Your task to perform on an android device: remove spam from my inbox in the gmail app Image 0: 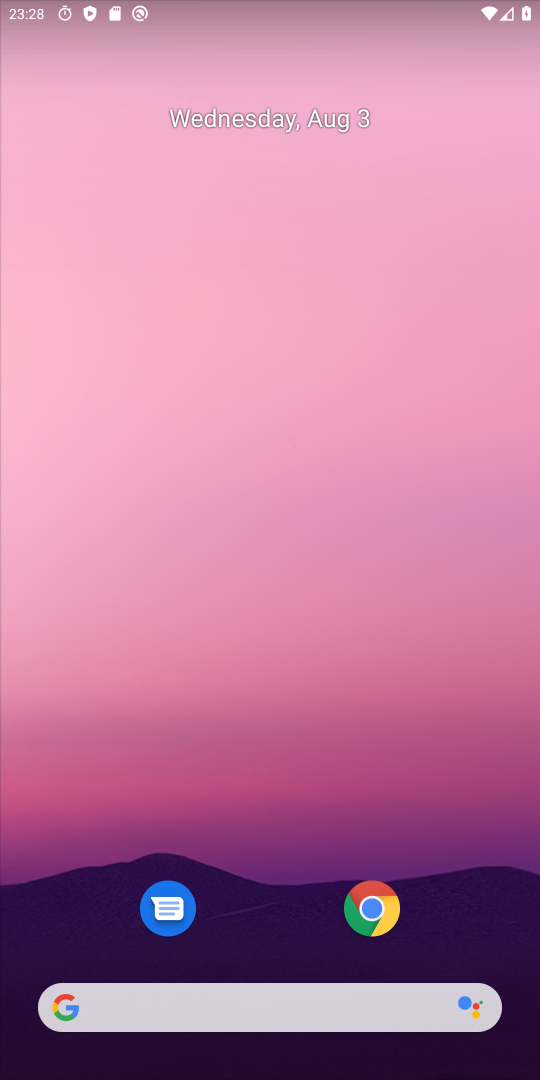
Step 0: drag from (284, 991) to (285, 415)
Your task to perform on an android device: remove spam from my inbox in the gmail app Image 1: 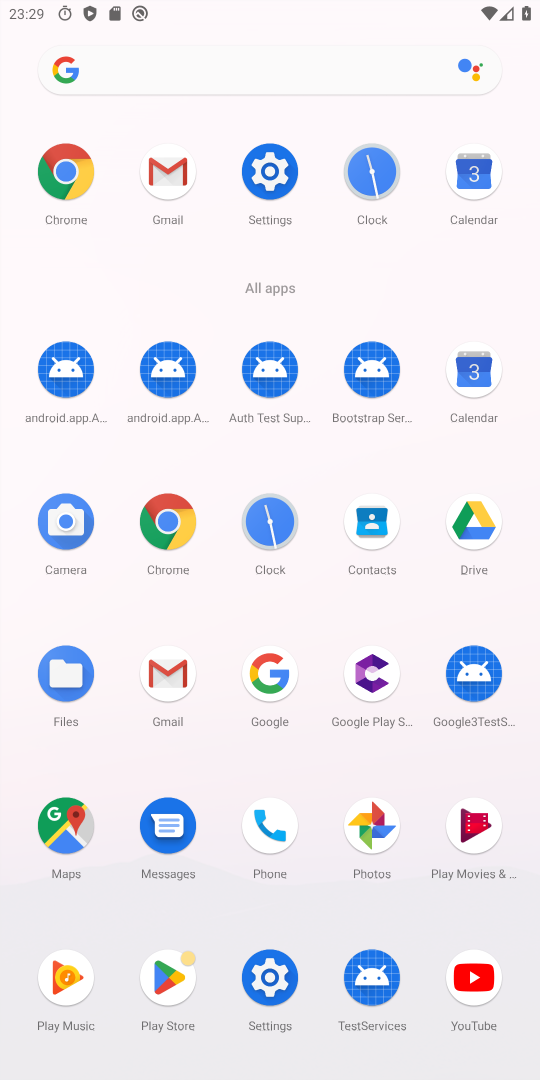
Step 1: click (158, 680)
Your task to perform on an android device: remove spam from my inbox in the gmail app Image 2: 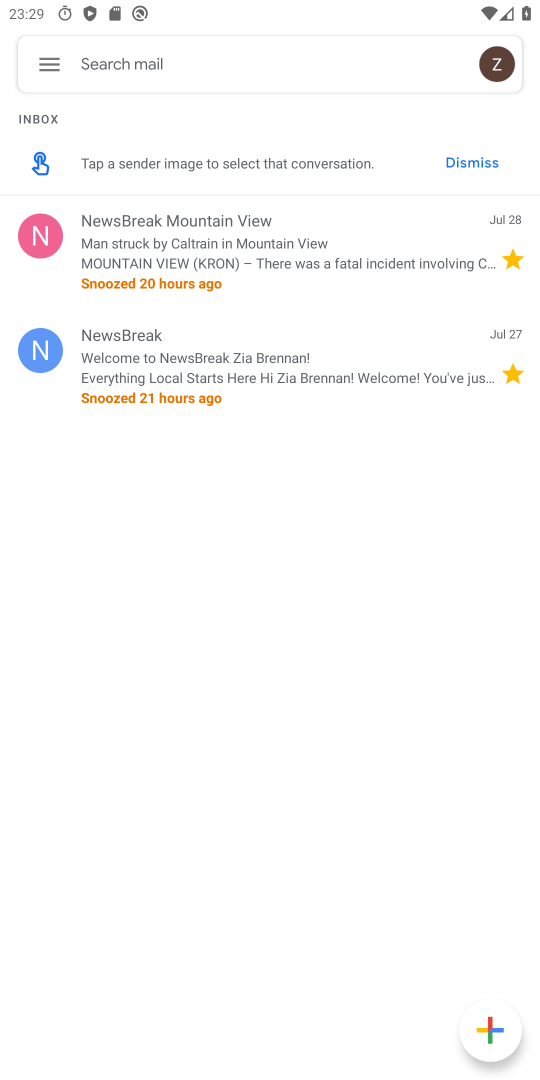
Step 2: click (53, 63)
Your task to perform on an android device: remove spam from my inbox in the gmail app Image 3: 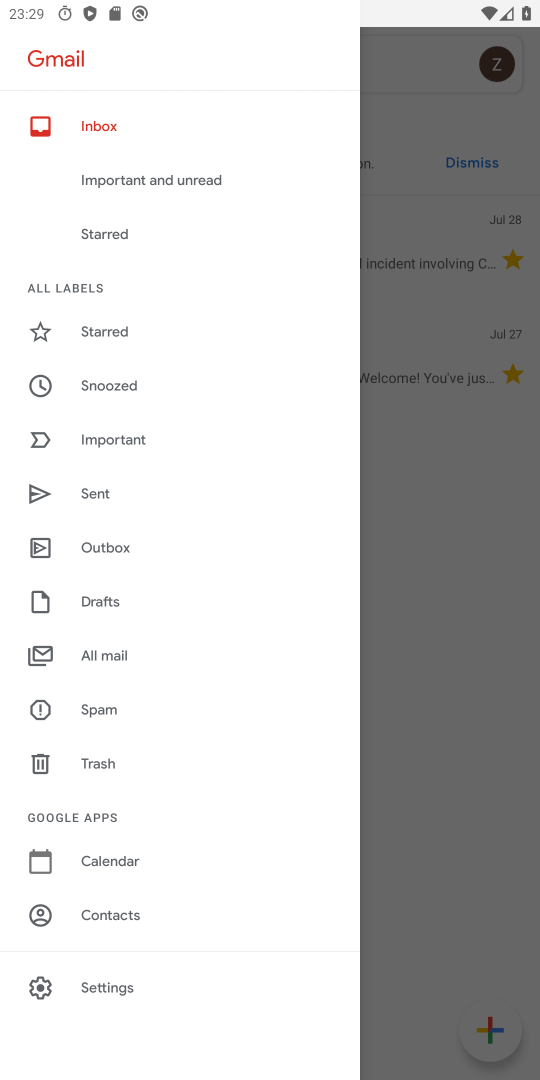
Step 3: click (123, 990)
Your task to perform on an android device: remove spam from my inbox in the gmail app Image 4: 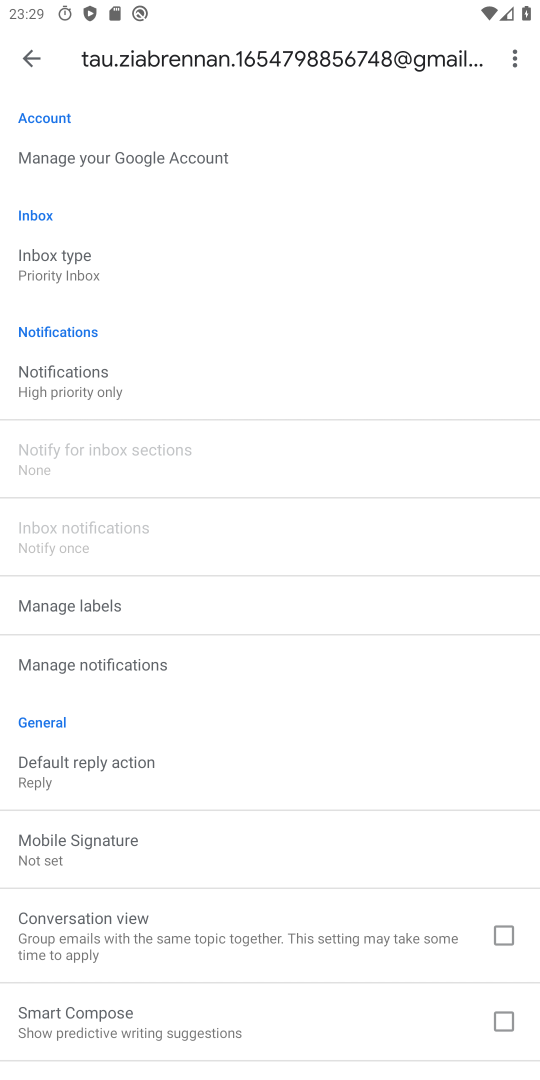
Step 4: click (31, 64)
Your task to perform on an android device: remove spam from my inbox in the gmail app Image 5: 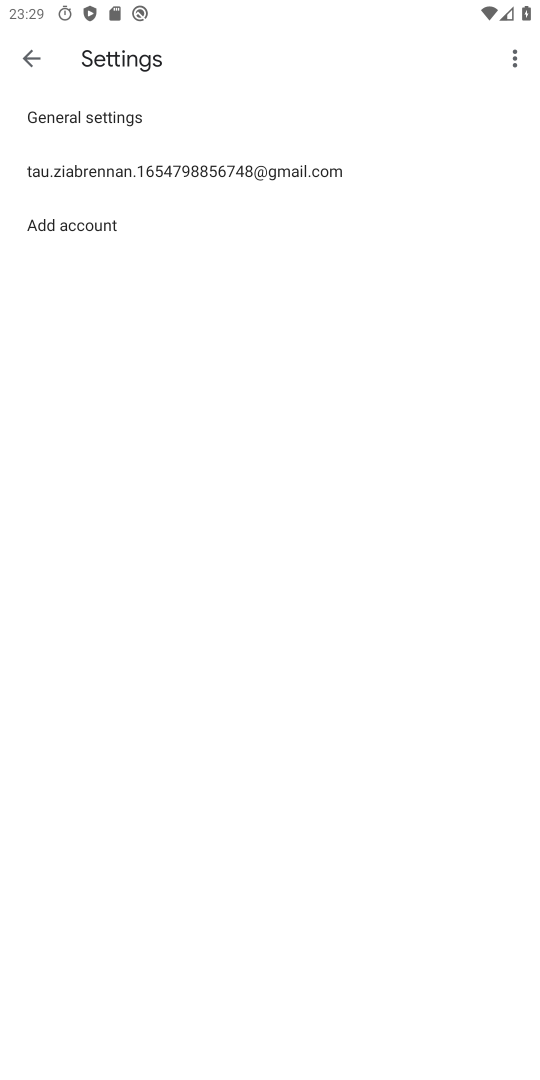
Step 5: click (30, 64)
Your task to perform on an android device: remove spam from my inbox in the gmail app Image 6: 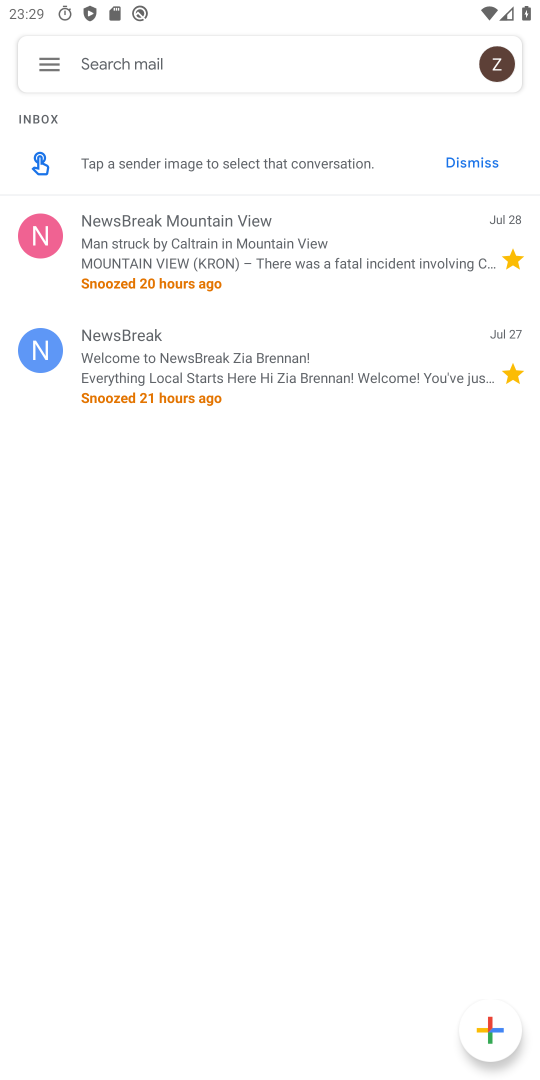
Step 6: click (30, 64)
Your task to perform on an android device: remove spam from my inbox in the gmail app Image 7: 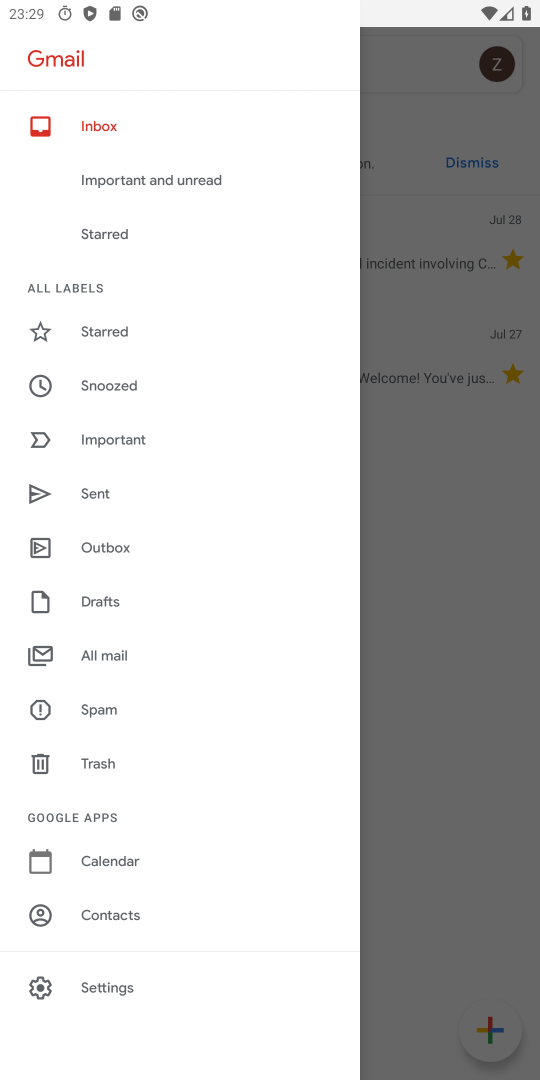
Step 7: click (149, 690)
Your task to perform on an android device: remove spam from my inbox in the gmail app Image 8: 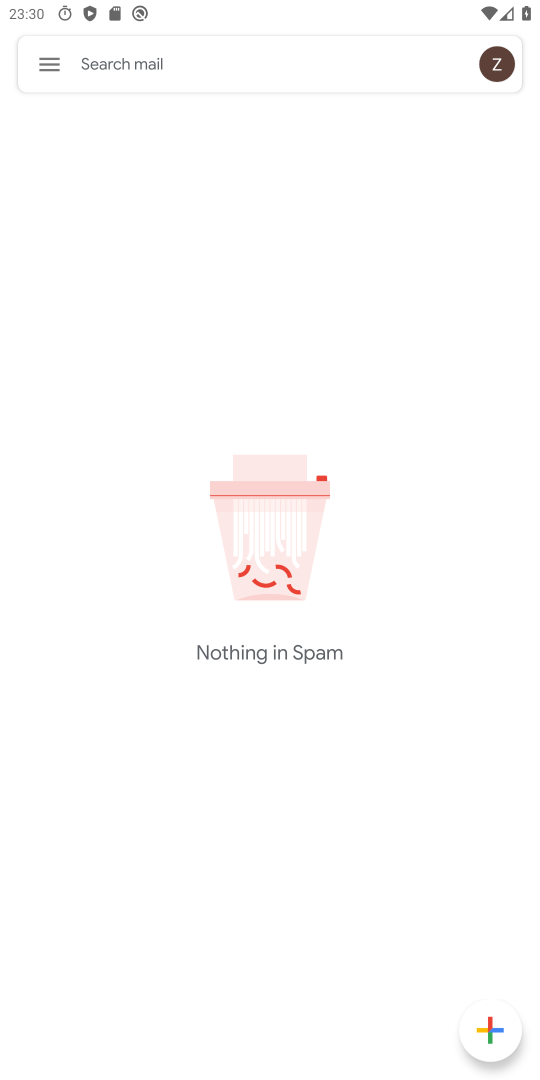
Step 8: task complete